Your task to perform on an android device: Check the weather Image 0: 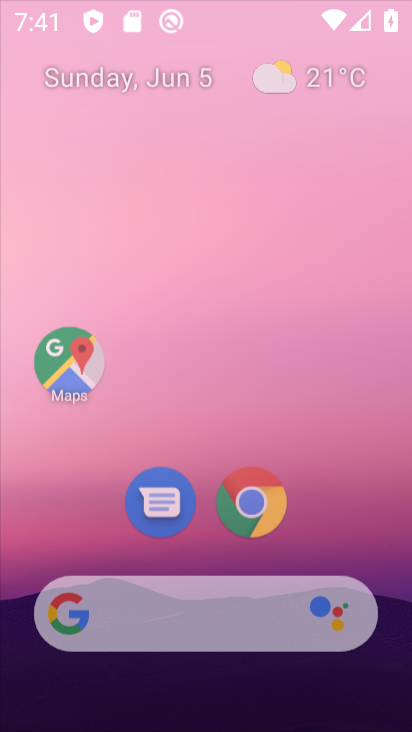
Step 0: click (76, 399)
Your task to perform on an android device: Check the weather Image 1: 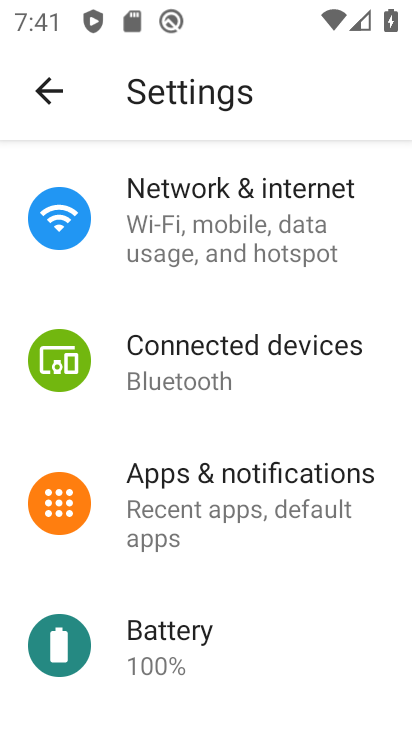
Step 1: press home button
Your task to perform on an android device: Check the weather Image 2: 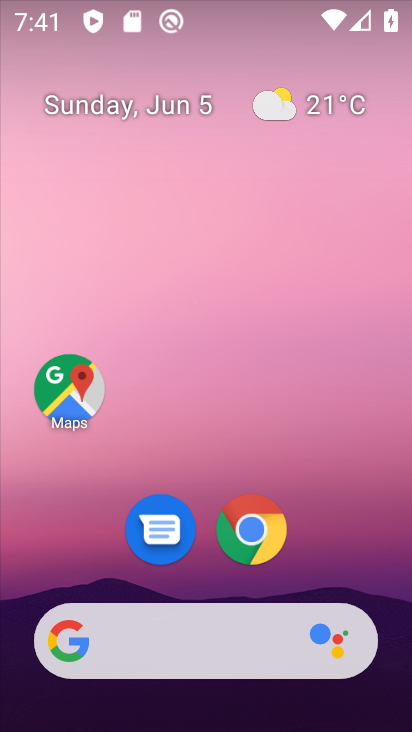
Step 2: click (181, 627)
Your task to perform on an android device: Check the weather Image 3: 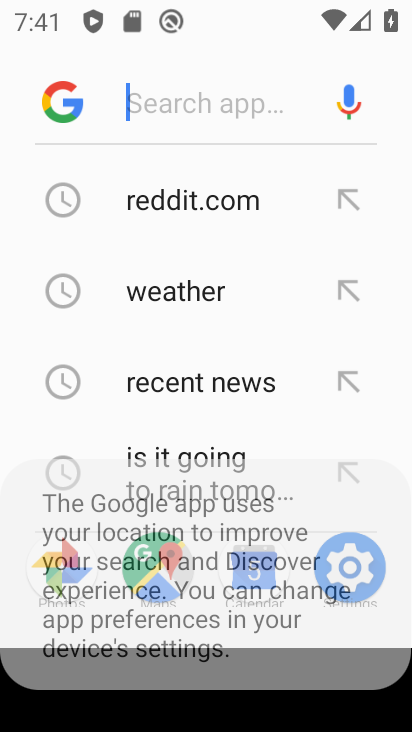
Step 3: type "w"
Your task to perform on an android device: Check the weather Image 4: 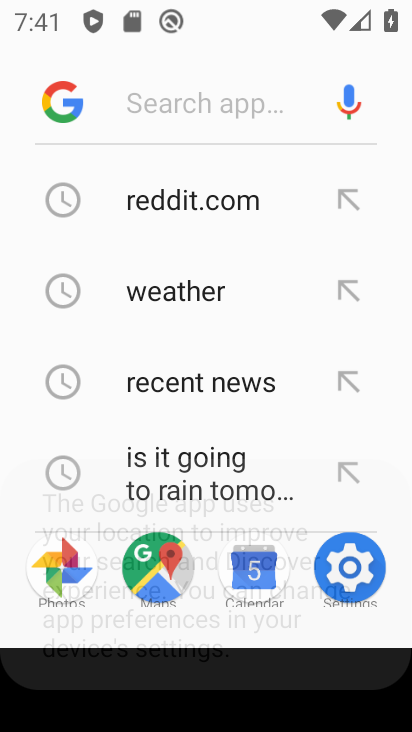
Step 4: click (217, 276)
Your task to perform on an android device: Check the weather Image 5: 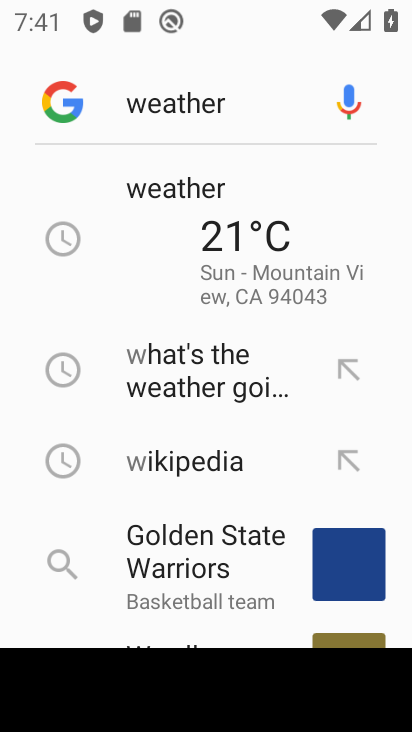
Step 5: click (196, 206)
Your task to perform on an android device: Check the weather Image 6: 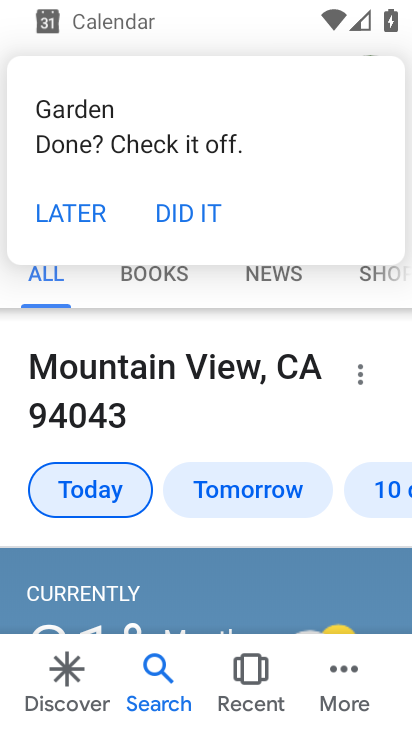
Step 6: task complete